Your task to perform on an android device: star an email in the gmail app Image 0: 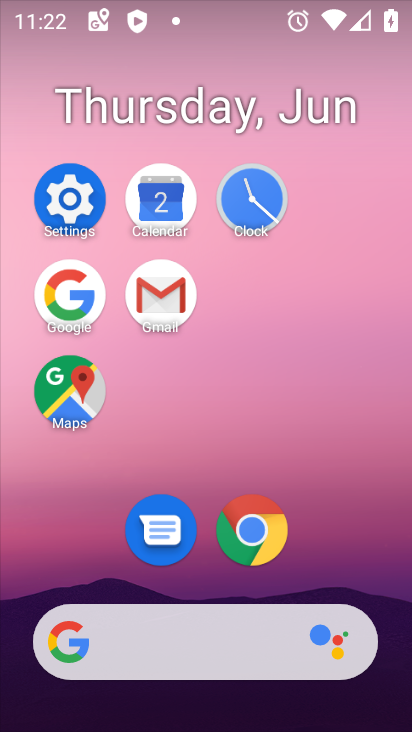
Step 0: click (155, 305)
Your task to perform on an android device: star an email in the gmail app Image 1: 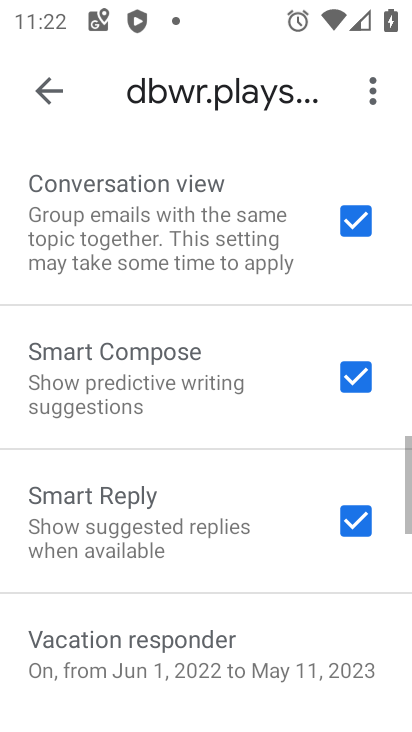
Step 1: click (44, 104)
Your task to perform on an android device: star an email in the gmail app Image 2: 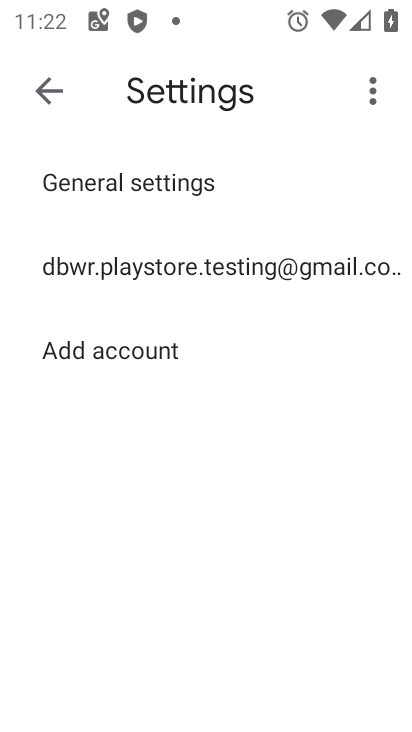
Step 2: click (49, 76)
Your task to perform on an android device: star an email in the gmail app Image 3: 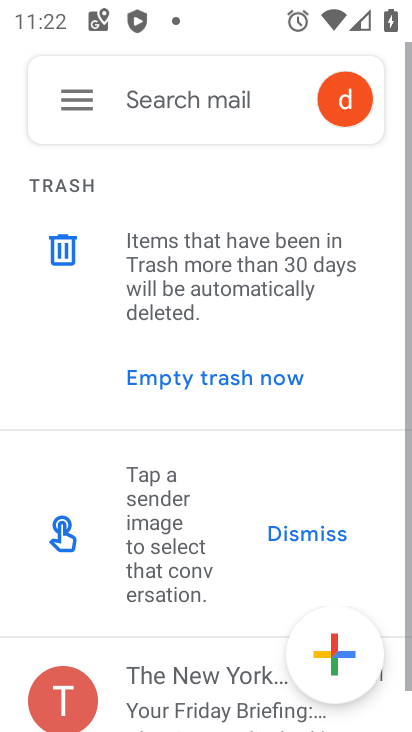
Step 3: drag from (166, 668) to (219, 272)
Your task to perform on an android device: star an email in the gmail app Image 4: 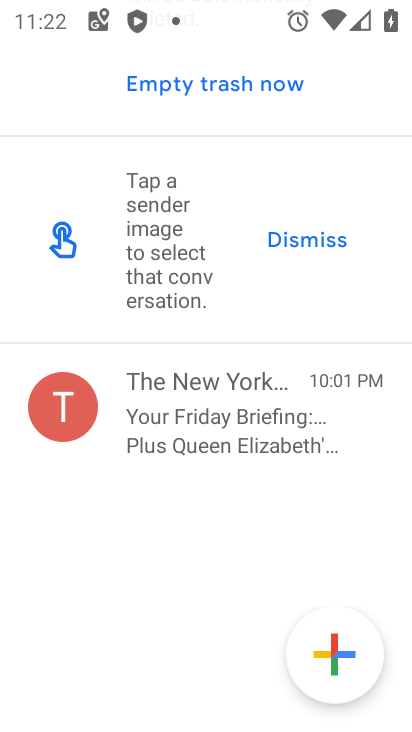
Step 4: click (221, 411)
Your task to perform on an android device: star an email in the gmail app Image 5: 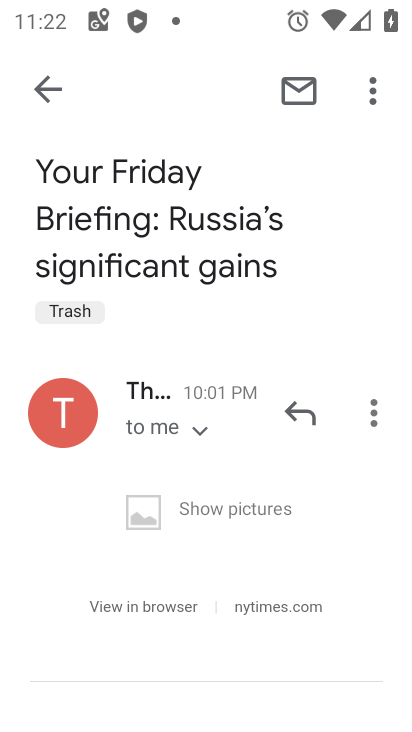
Step 5: click (377, 82)
Your task to perform on an android device: star an email in the gmail app Image 6: 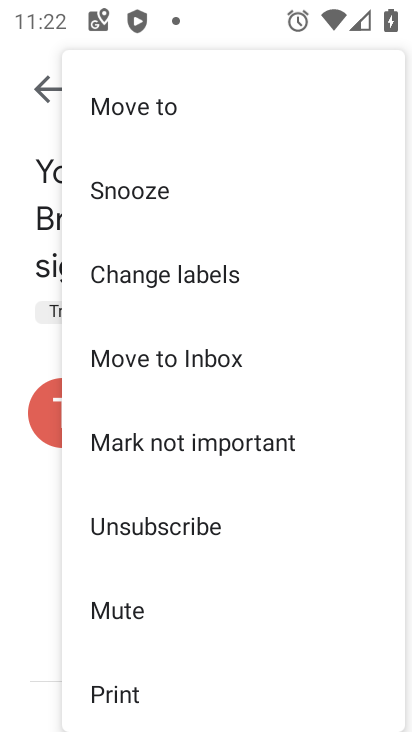
Step 6: drag from (321, 214) to (268, 465)
Your task to perform on an android device: star an email in the gmail app Image 7: 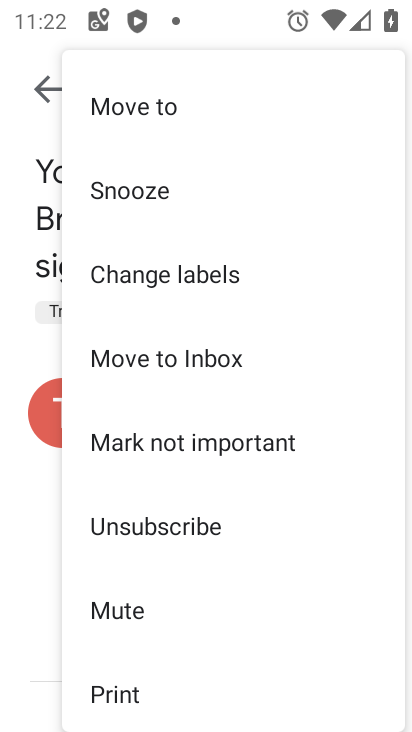
Step 7: drag from (279, 474) to (310, 78)
Your task to perform on an android device: star an email in the gmail app Image 8: 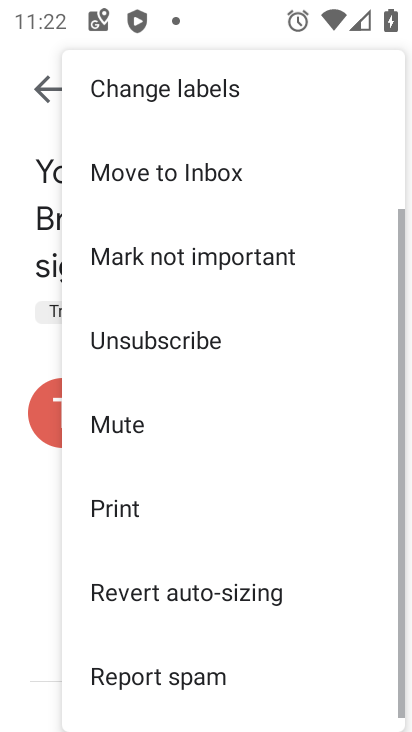
Step 8: drag from (255, 517) to (294, 100)
Your task to perform on an android device: star an email in the gmail app Image 9: 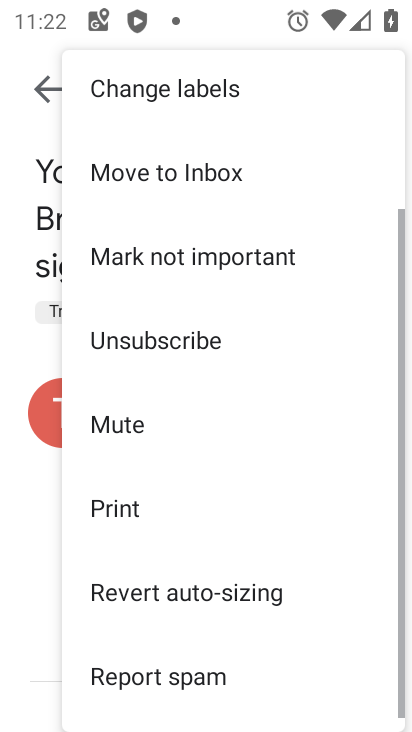
Step 9: click (57, 91)
Your task to perform on an android device: star an email in the gmail app Image 10: 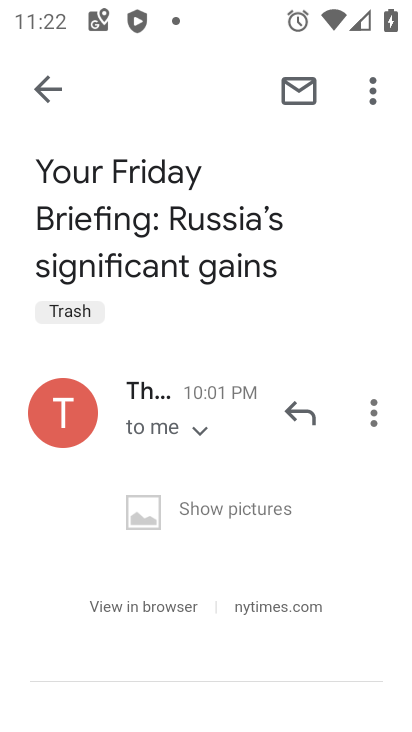
Step 10: click (56, 91)
Your task to perform on an android device: star an email in the gmail app Image 11: 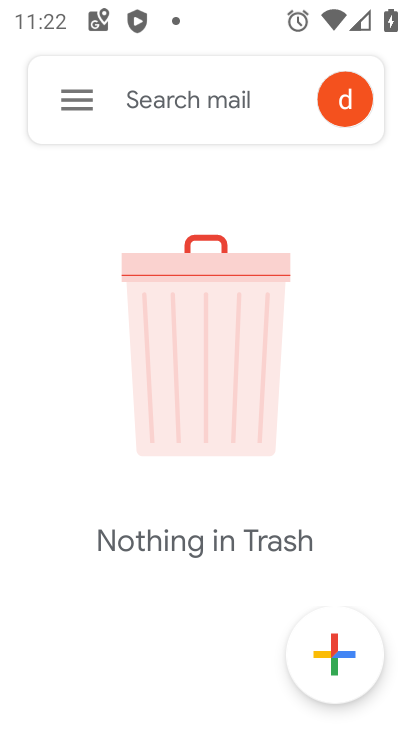
Step 11: click (89, 106)
Your task to perform on an android device: star an email in the gmail app Image 12: 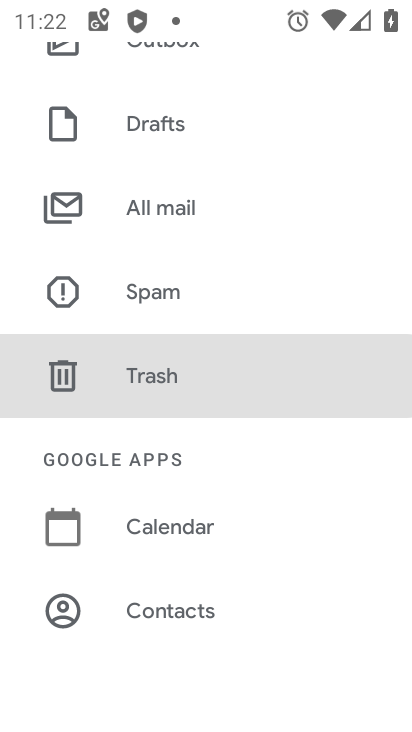
Step 12: click (222, 213)
Your task to perform on an android device: star an email in the gmail app Image 13: 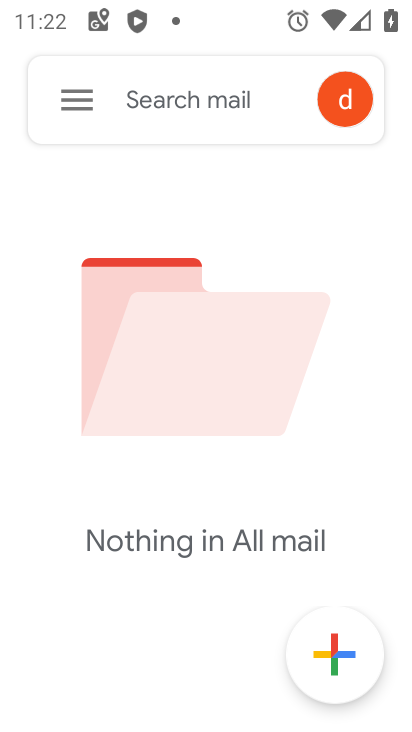
Step 13: task complete